Your task to perform on an android device: turn on bluetooth scan Image 0: 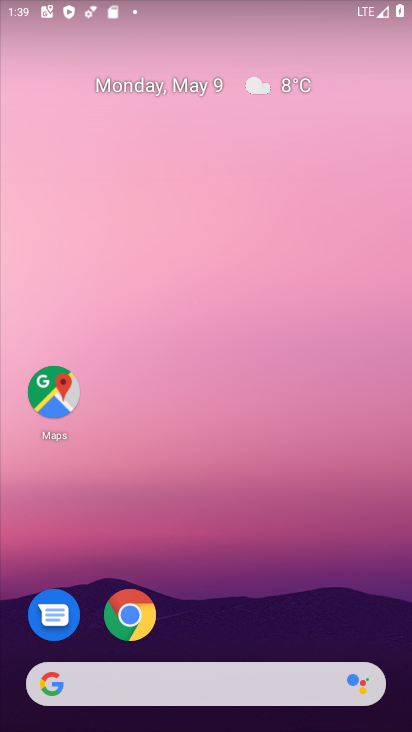
Step 0: drag from (386, 628) to (293, 62)
Your task to perform on an android device: turn on bluetooth scan Image 1: 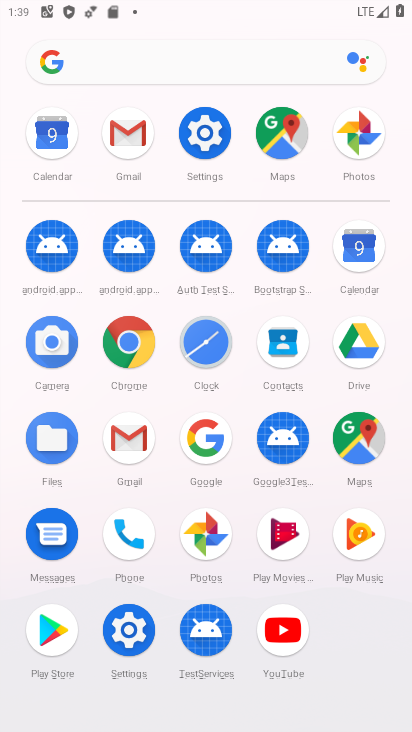
Step 1: click (129, 629)
Your task to perform on an android device: turn on bluetooth scan Image 2: 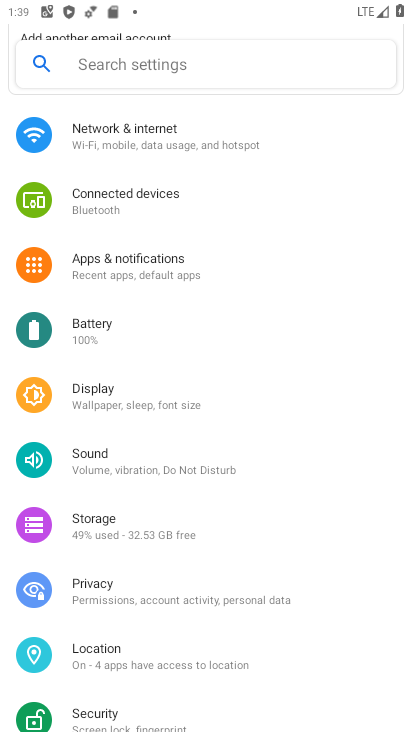
Step 2: click (109, 644)
Your task to perform on an android device: turn on bluetooth scan Image 3: 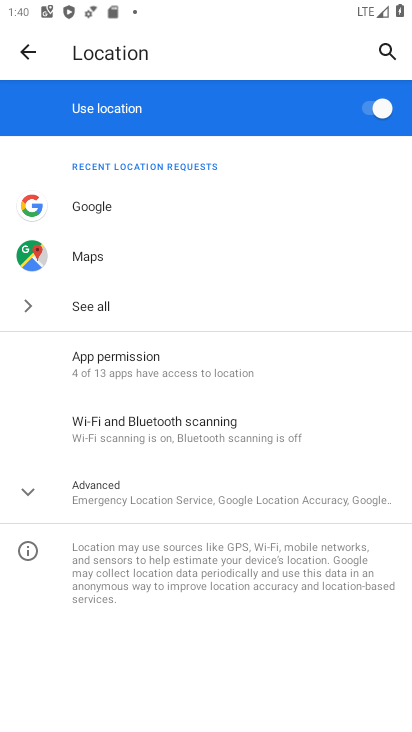
Step 3: click (131, 417)
Your task to perform on an android device: turn on bluetooth scan Image 4: 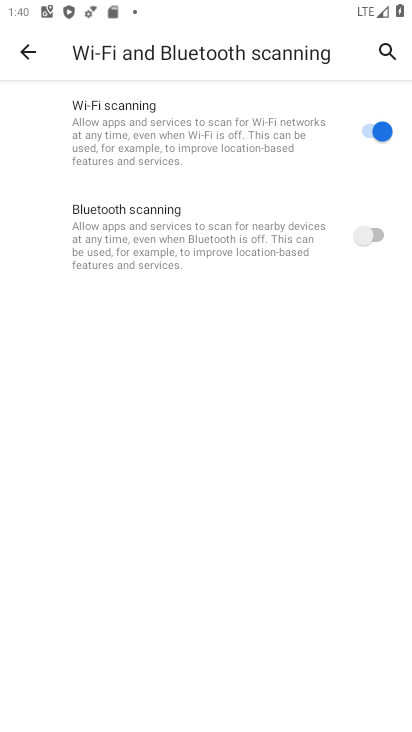
Step 4: click (373, 226)
Your task to perform on an android device: turn on bluetooth scan Image 5: 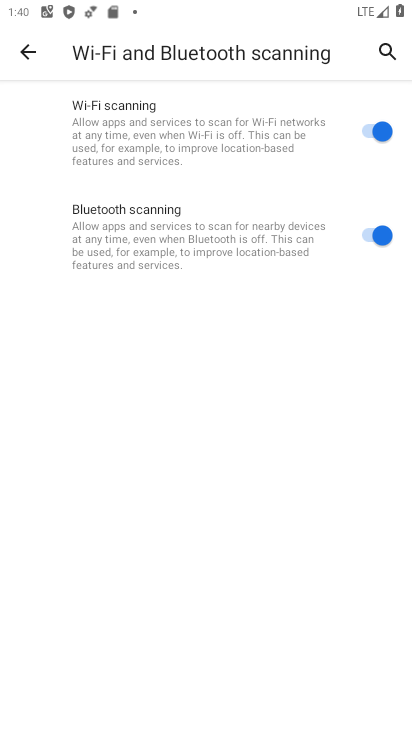
Step 5: task complete